Your task to perform on an android device: Open Google Maps Image 0: 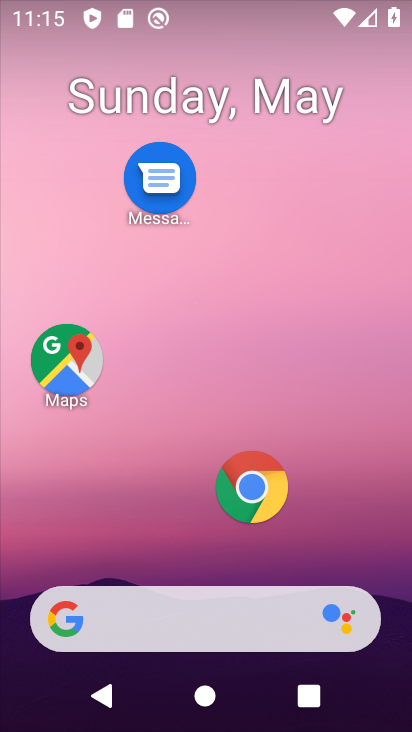
Step 0: drag from (188, 529) to (276, 15)
Your task to perform on an android device: Open Google Maps Image 1: 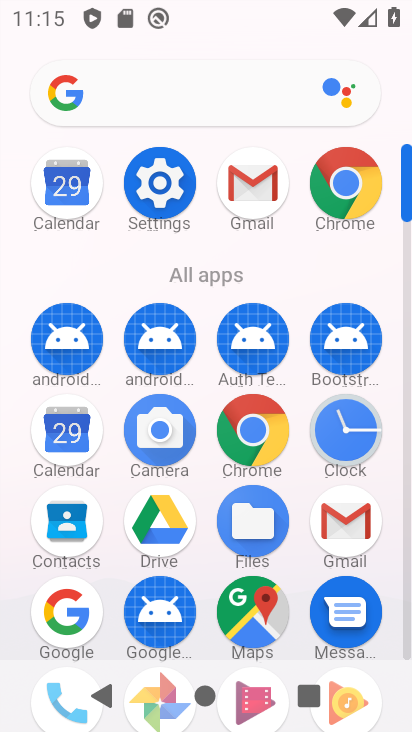
Step 1: click (251, 605)
Your task to perform on an android device: Open Google Maps Image 2: 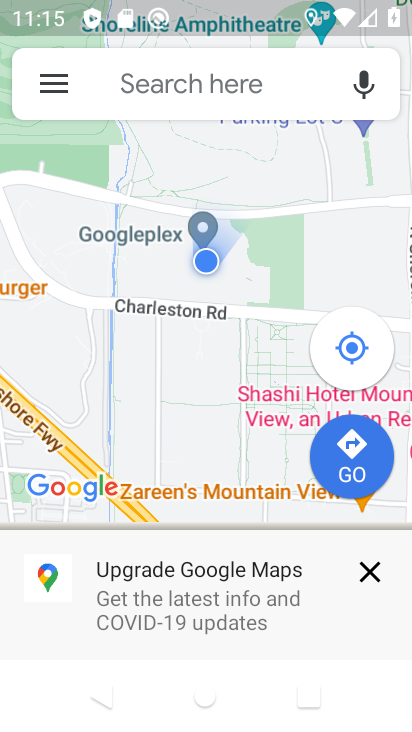
Step 2: task complete